Your task to perform on an android device: delete location history Image 0: 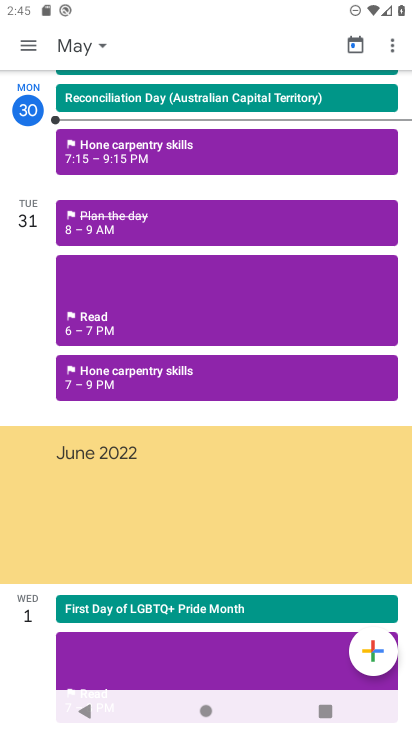
Step 0: press home button
Your task to perform on an android device: delete location history Image 1: 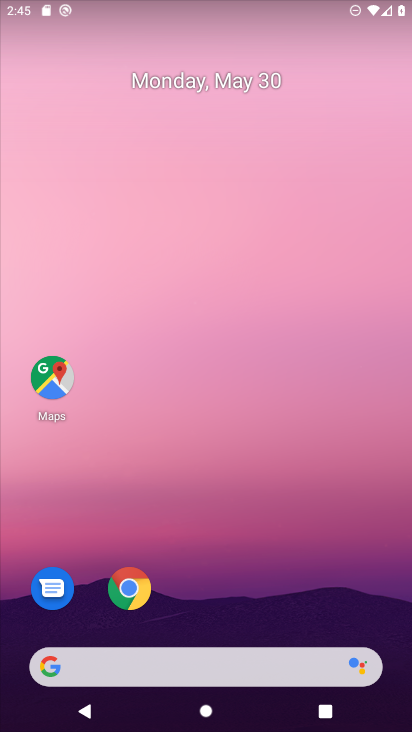
Step 1: click (50, 370)
Your task to perform on an android device: delete location history Image 2: 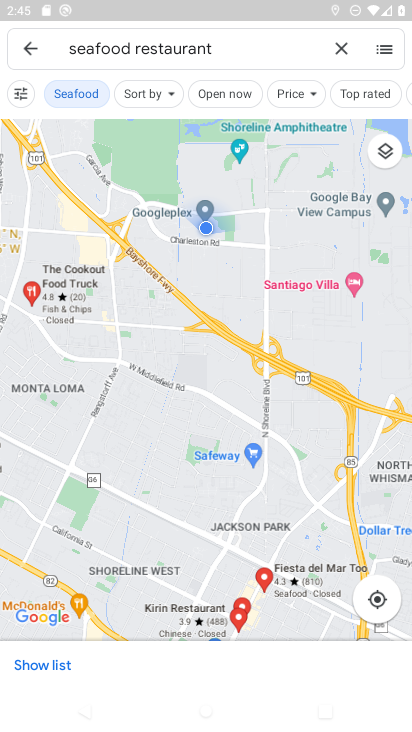
Step 2: click (34, 43)
Your task to perform on an android device: delete location history Image 3: 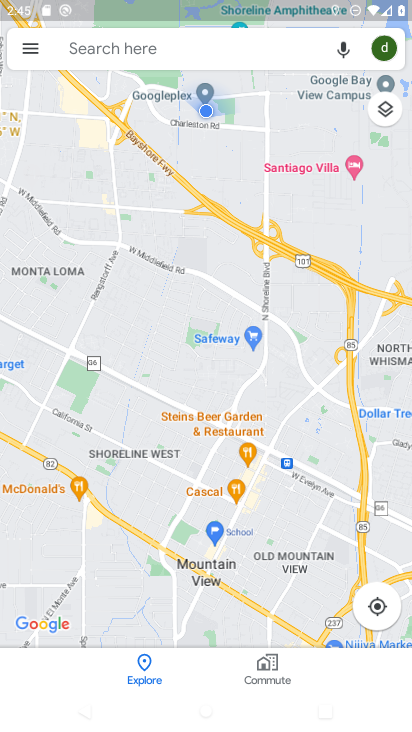
Step 3: click (341, 43)
Your task to perform on an android device: delete location history Image 4: 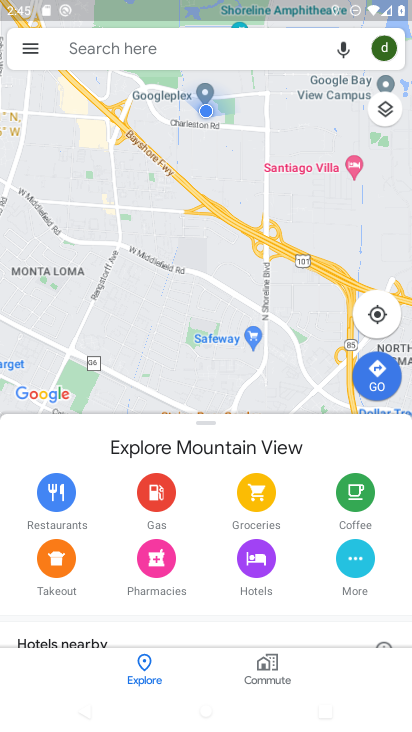
Step 4: click (37, 35)
Your task to perform on an android device: delete location history Image 5: 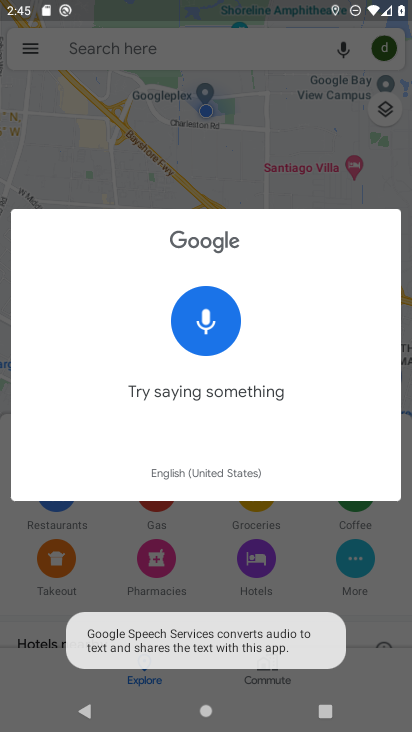
Step 5: click (63, 93)
Your task to perform on an android device: delete location history Image 6: 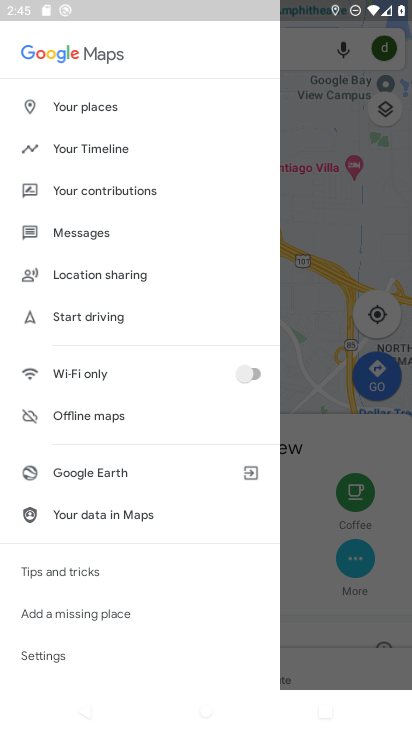
Step 6: click (80, 140)
Your task to perform on an android device: delete location history Image 7: 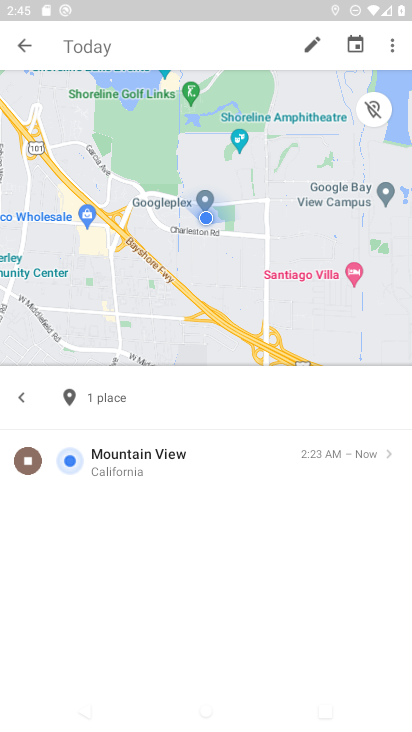
Step 7: click (394, 46)
Your task to perform on an android device: delete location history Image 8: 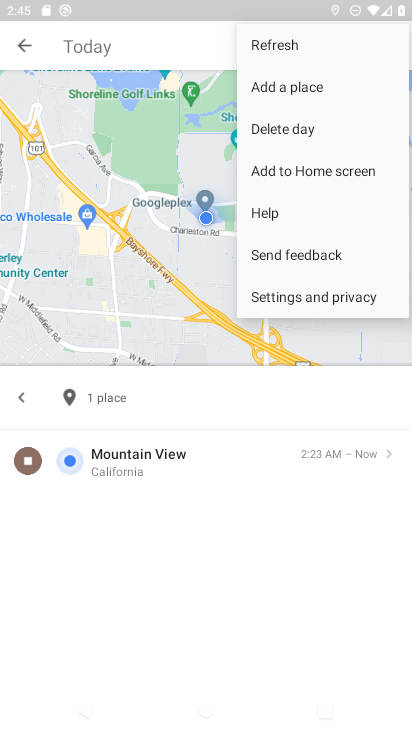
Step 8: click (280, 292)
Your task to perform on an android device: delete location history Image 9: 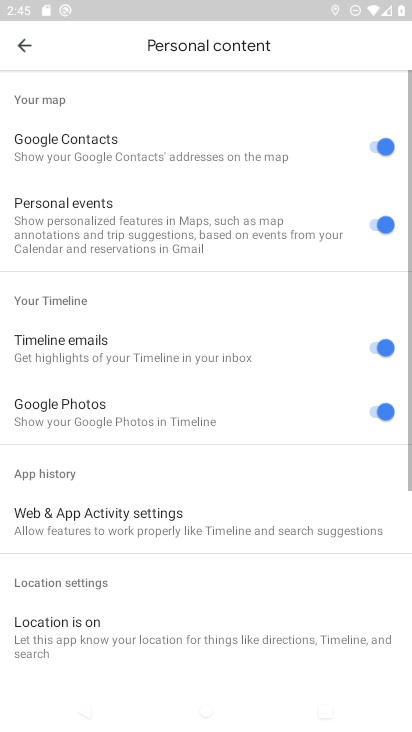
Step 9: drag from (155, 549) to (197, 150)
Your task to perform on an android device: delete location history Image 10: 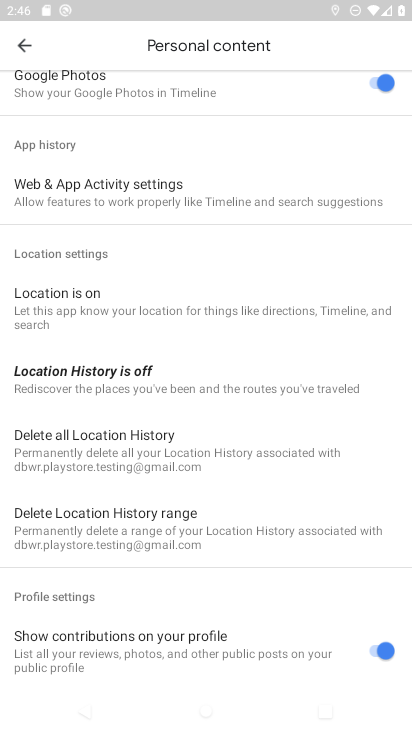
Step 10: click (119, 431)
Your task to perform on an android device: delete location history Image 11: 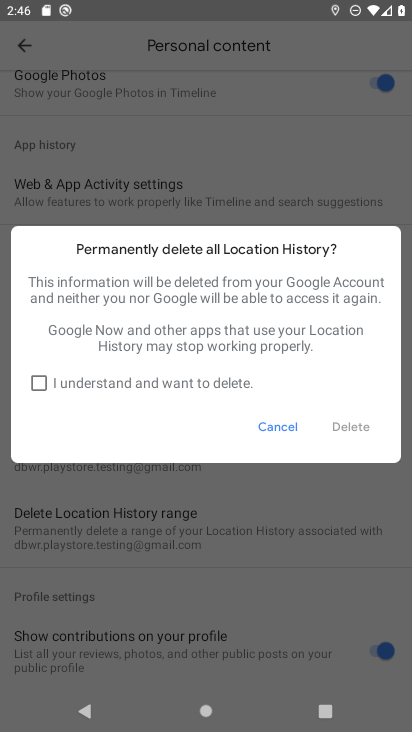
Step 11: click (72, 377)
Your task to perform on an android device: delete location history Image 12: 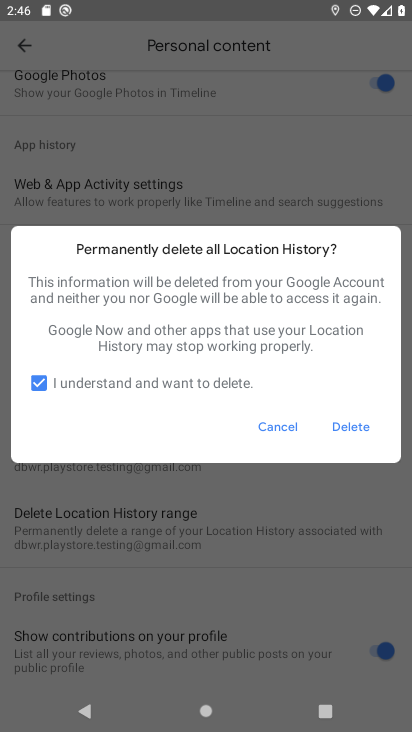
Step 12: click (354, 423)
Your task to perform on an android device: delete location history Image 13: 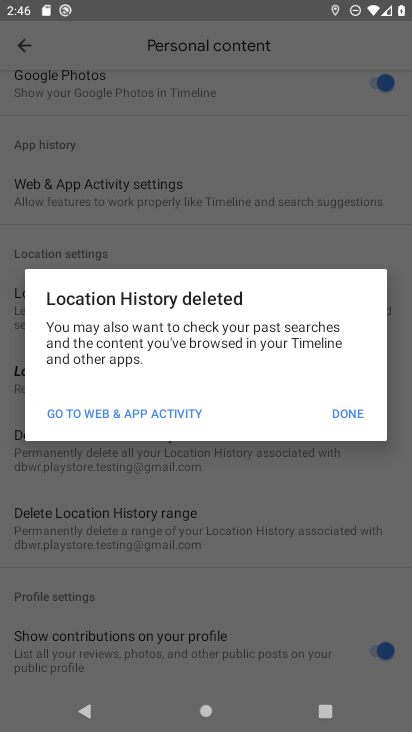
Step 13: click (354, 419)
Your task to perform on an android device: delete location history Image 14: 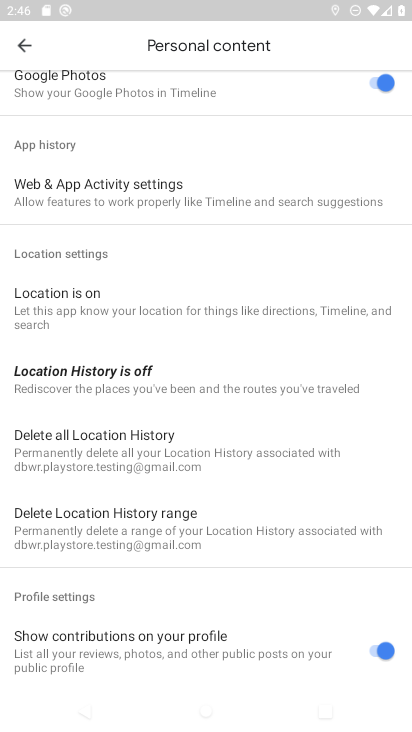
Step 14: task complete